Your task to perform on an android device: turn on javascript in the chrome app Image 0: 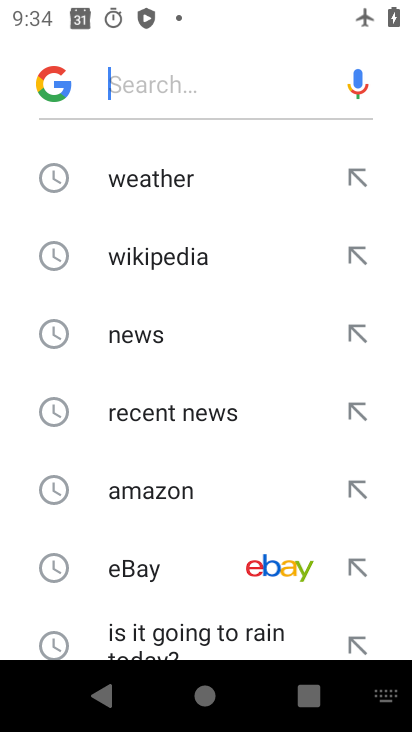
Step 0: press home button
Your task to perform on an android device: turn on javascript in the chrome app Image 1: 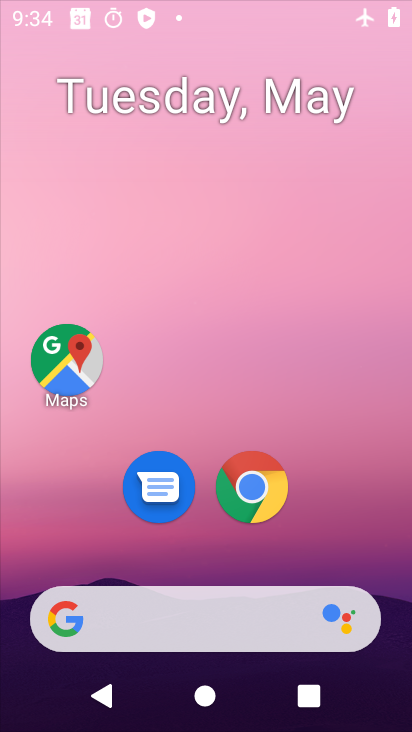
Step 1: drag from (259, 586) to (370, 23)
Your task to perform on an android device: turn on javascript in the chrome app Image 2: 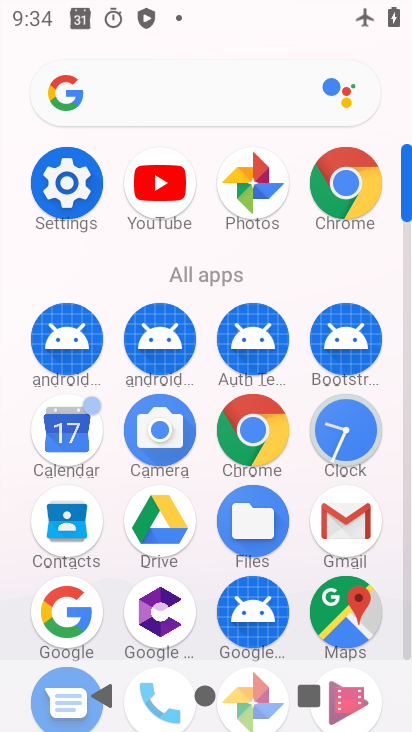
Step 2: click (260, 430)
Your task to perform on an android device: turn on javascript in the chrome app Image 3: 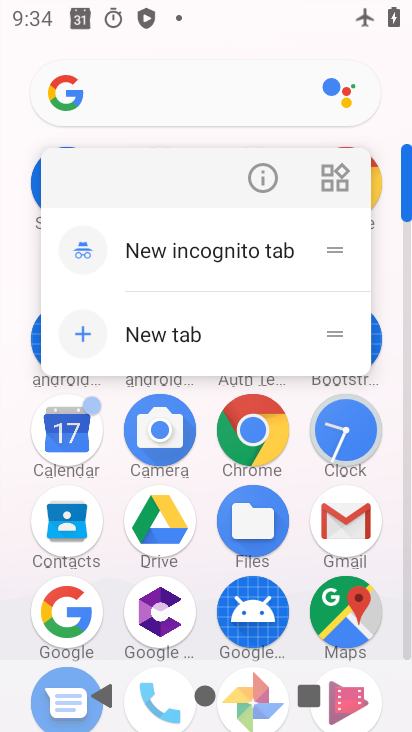
Step 3: click (268, 188)
Your task to perform on an android device: turn on javascript in the chrome app Image 4: 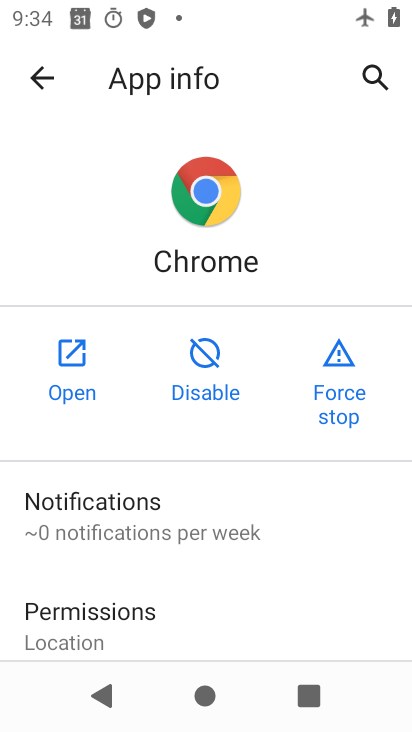
Step 4: click (60, 376)
Your task to perform on an android device: turn on javascript in the chrome app Image 5: 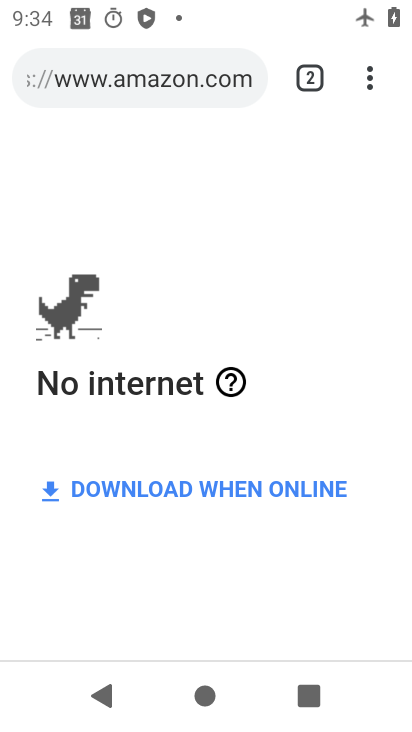
Step 5: click (367, 91)
Your task to perform on an android device: turn on javascript in the chrome app Image 6: 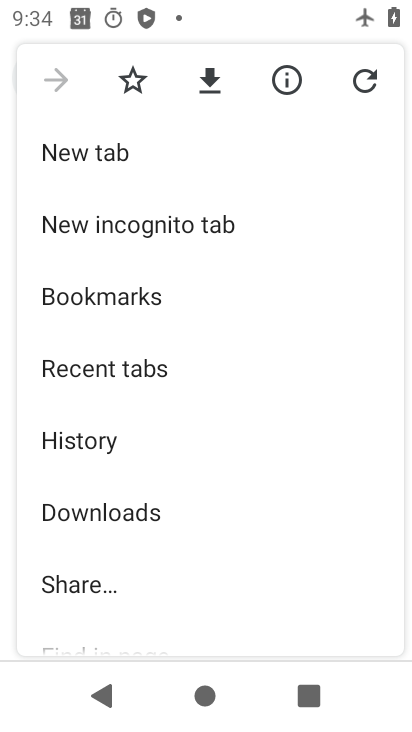
Step 6: drag from (201, 513) to (328, 107)
Your task to perform on an android device: turn on javascript in the chrome app Image 7: 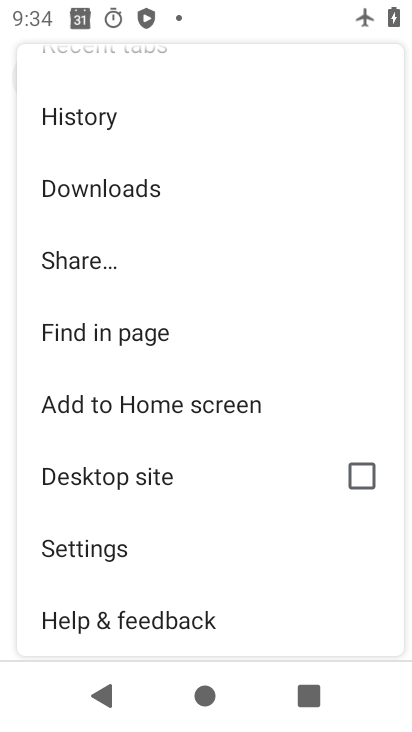
Step 7: click (132, 564)
Your task to perform on an android device: turn on javascript in the chrome app Image 8: 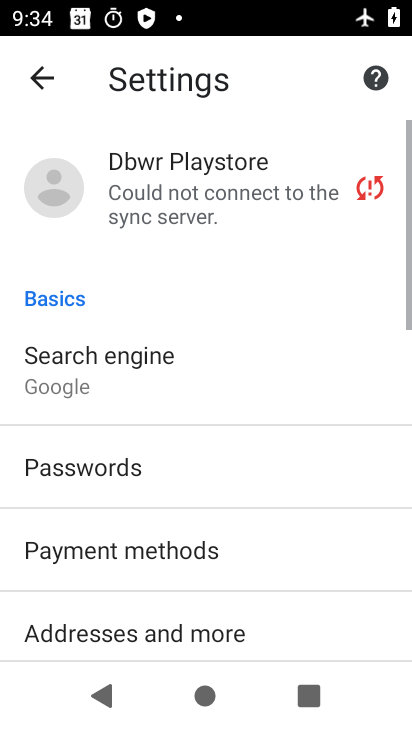
Step 8: drag from (165, 536) to (394, 31)
Your task to perform on an android device: turn on javascript in the chrome app Image 9: 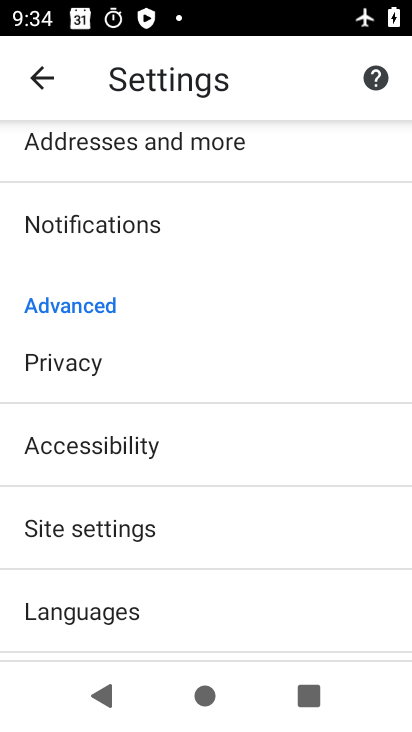
Step 9: click (154, 532)
Your task to perform on an android device: turn on javascript in the chrome app Image 10: 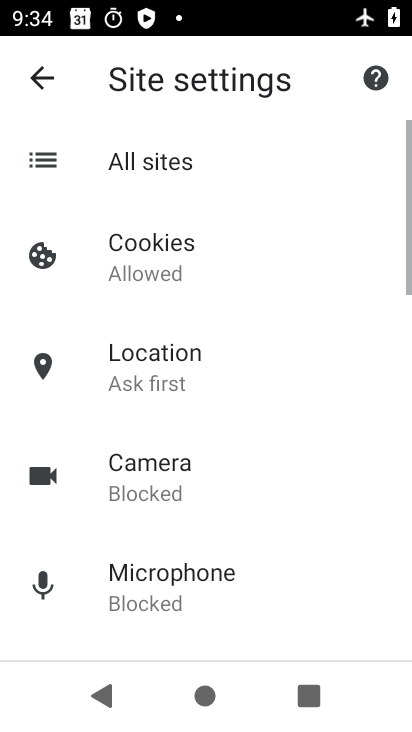
Step 10: drag from (153, 468) to (278, 170)
Your task to perform on an android device: turn on javascript in the chrome app Image 11: 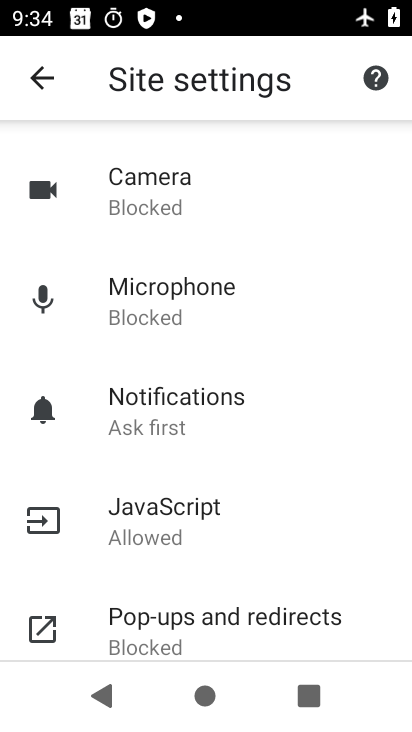
Step 11: click (163, 503)
Your task to perform on an android device: turn on javascript in the chrome app Image 12: 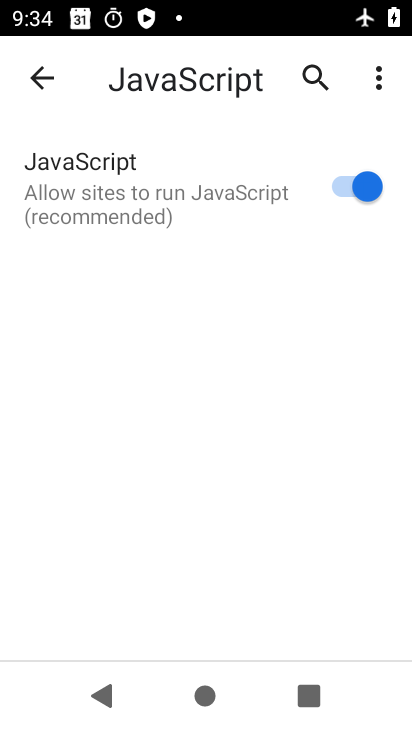
Step 12: task complete